Your task to perform on an android device: What time is it in Beijing? Image 0: 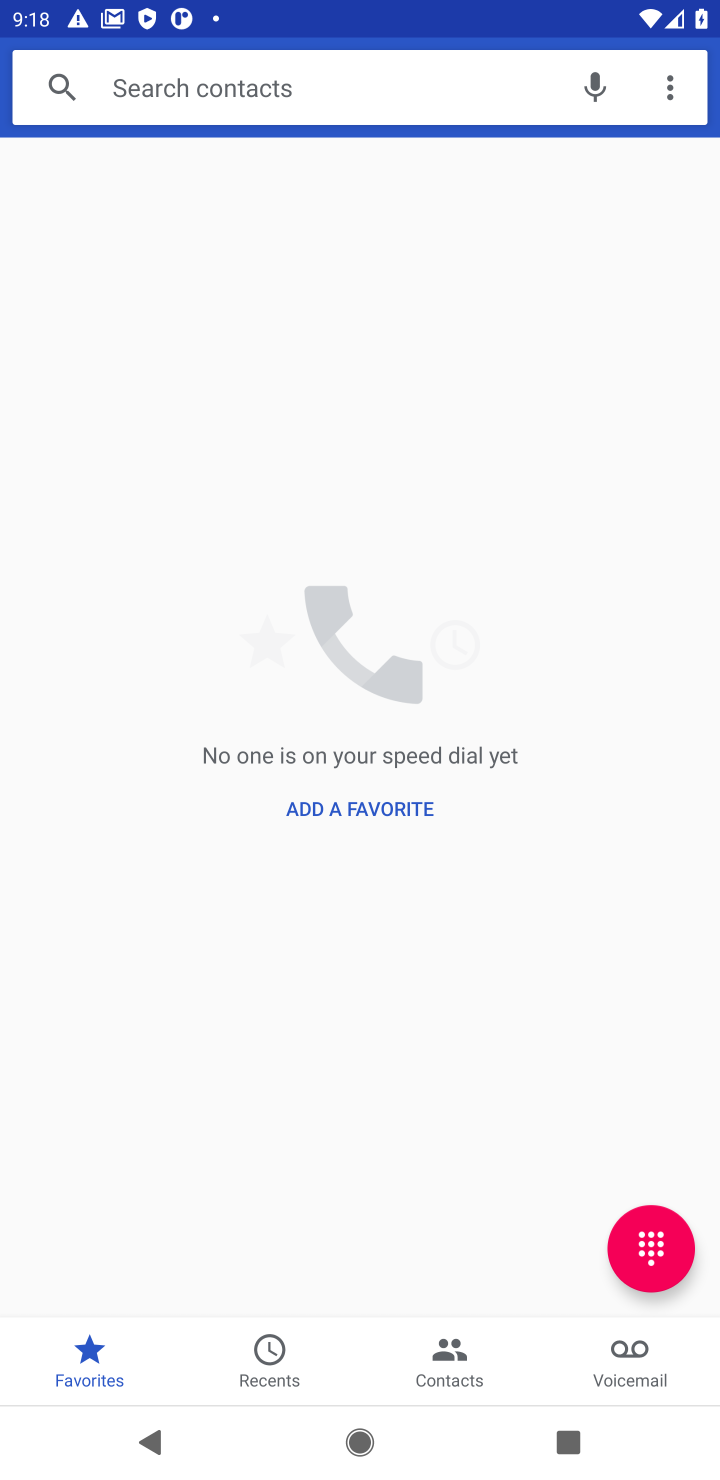
Step 0: press home button
Your task to perform on an android device: What time is it in Beijing? Image 1: 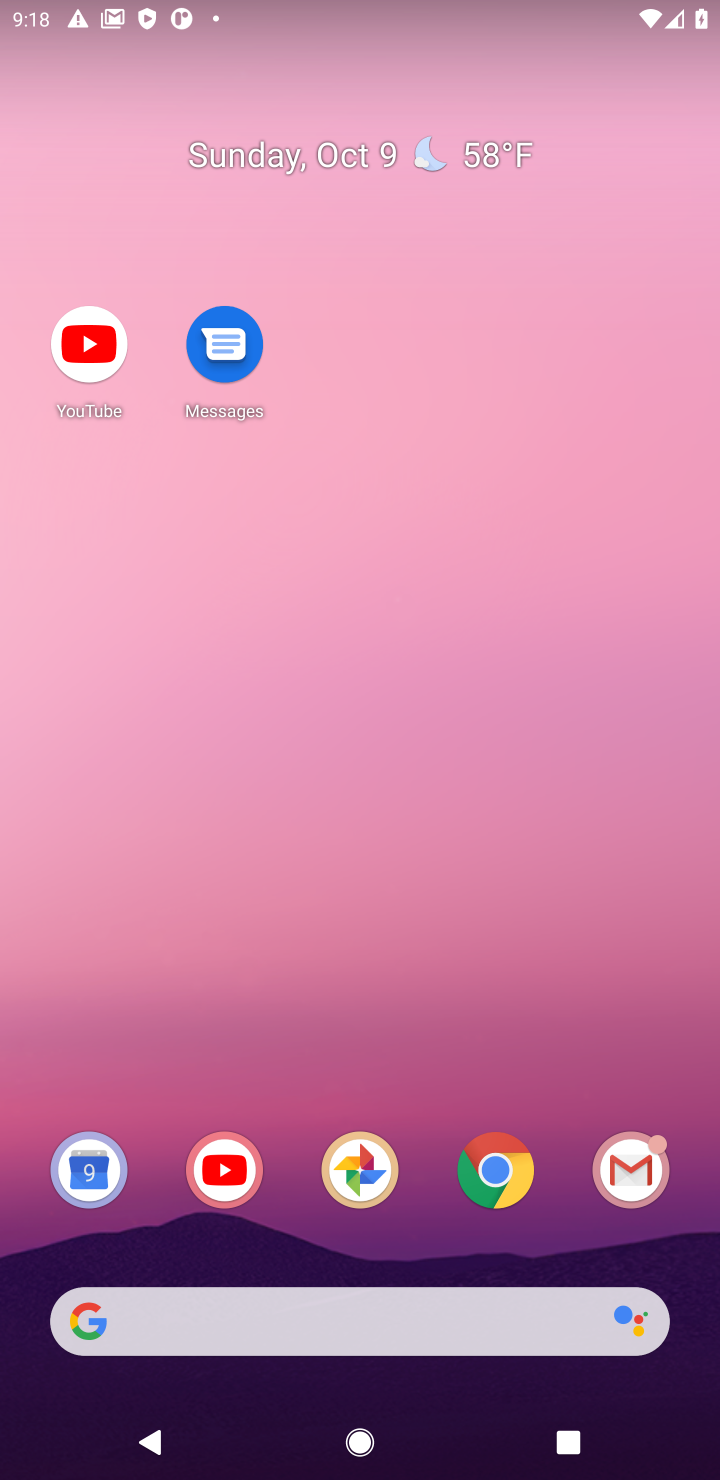
Step 1: click (411, 1310)
Your task to perform on an android device: What time is it in Beijing? Image 2: 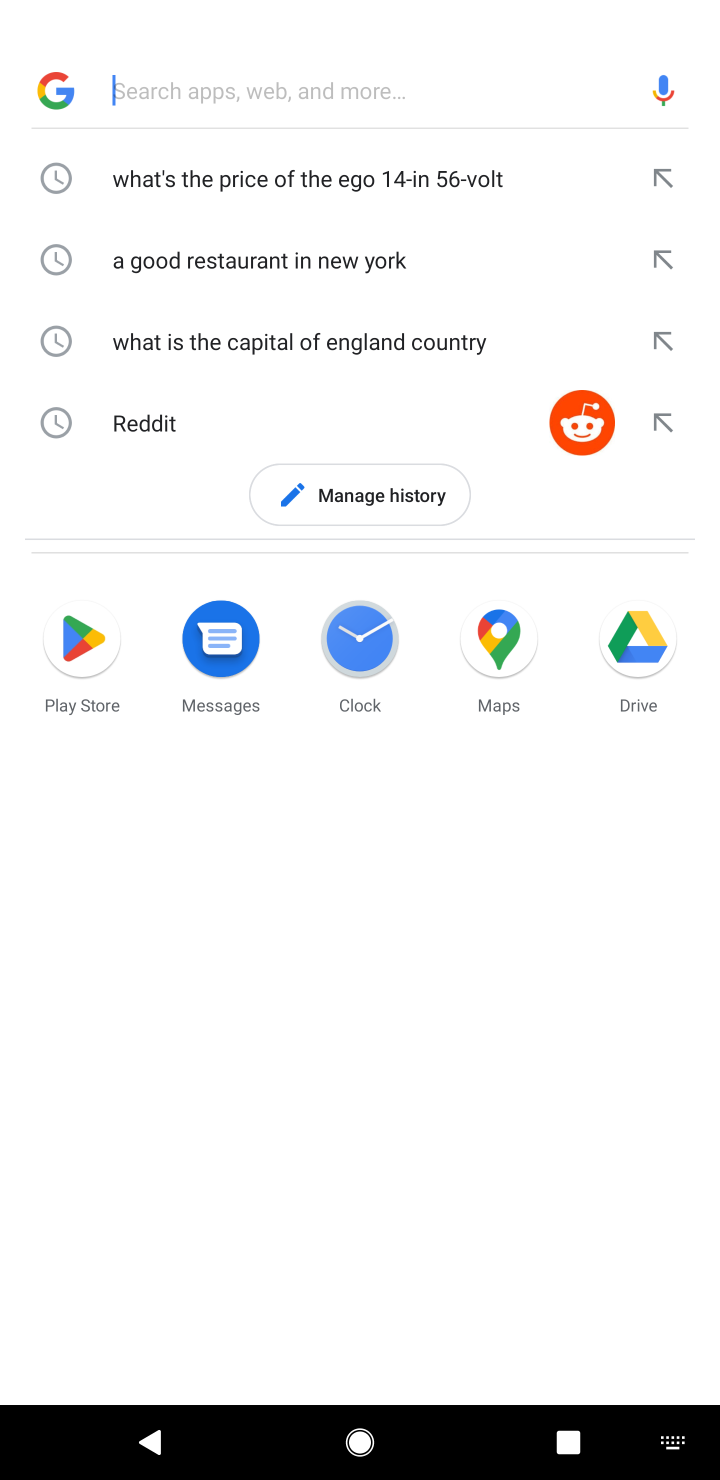
Step 2: type "What time is it in Beijing?"
Your task to perform on an android device: What time is it in Beijing? Image 3: 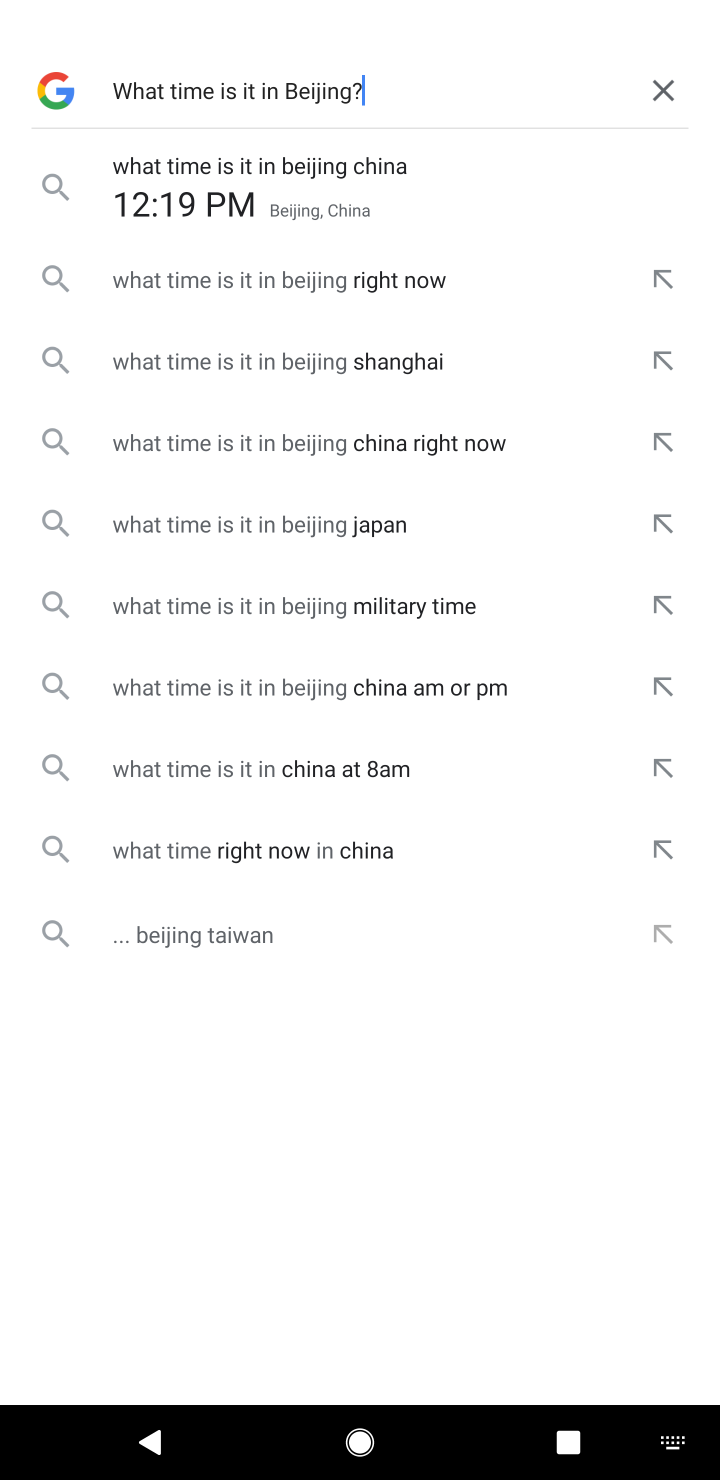
Step 3: click (259, 194)
Your task to perform on an android device: What time is it in Beijing? Image 4: 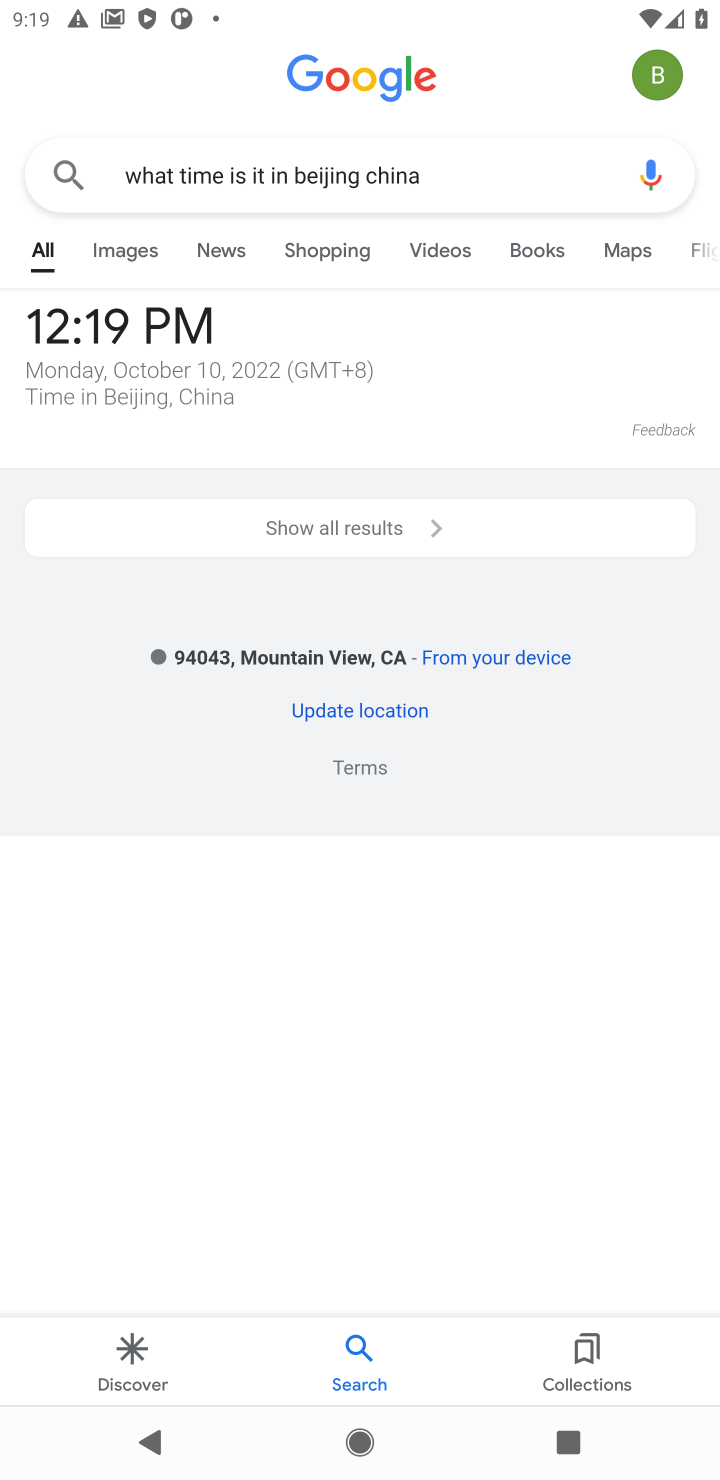
Step 4: task complete